Your task to perform on an android device: Open eBay Image 0: 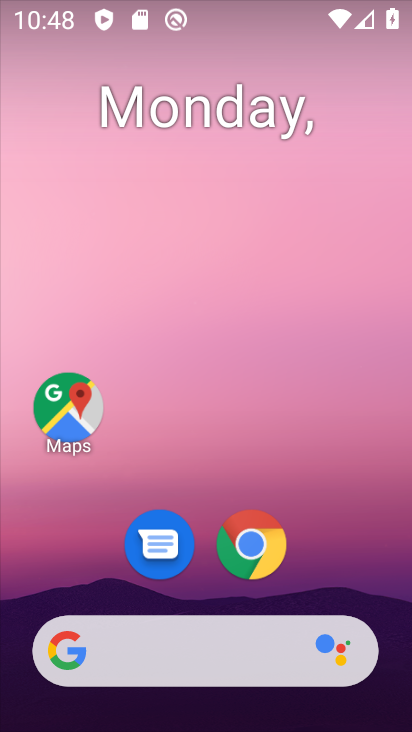
Step 0: click (259, 534)
Your task to perform on an android device: Open eBay Image 1: 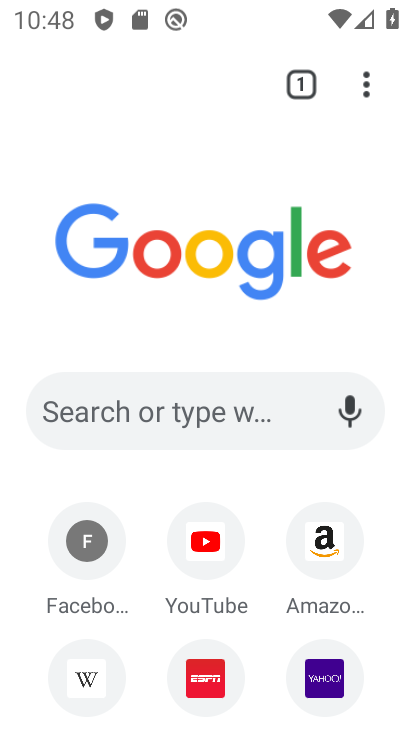
Step 1: click (149, 426)
Your task to perform on an android device: Open eBay Image 2: 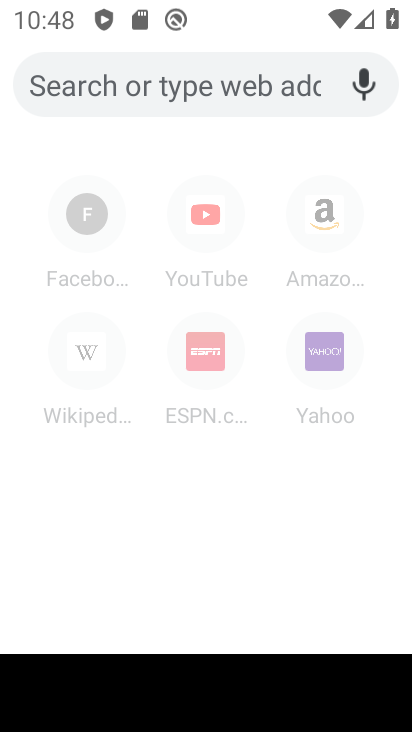
Step 2: type "eBay"
Your task to perform on an android device: Open eBay Image 3: 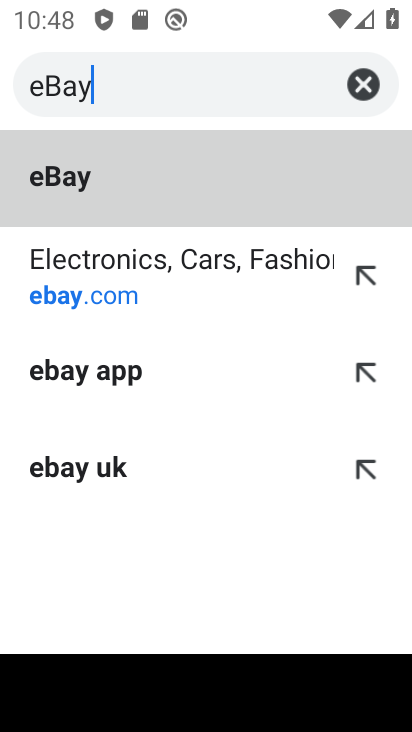
Step 3: click (156, 211)
Your task to perform on an android device: Open eBay Image 4: 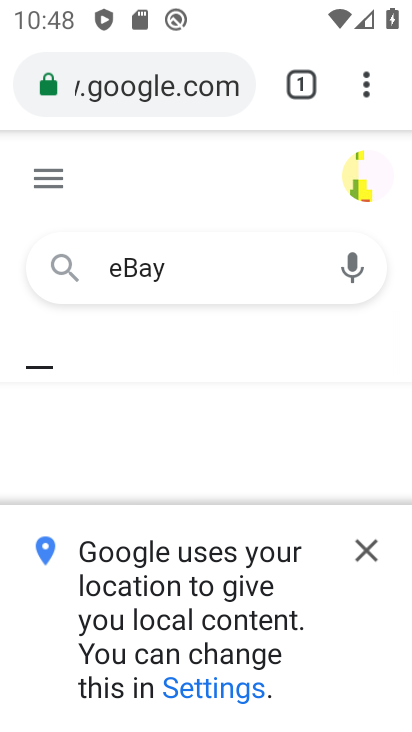
Step 4: click (369, 556)
Your task to perform on an android device: Open eBay Image 5: 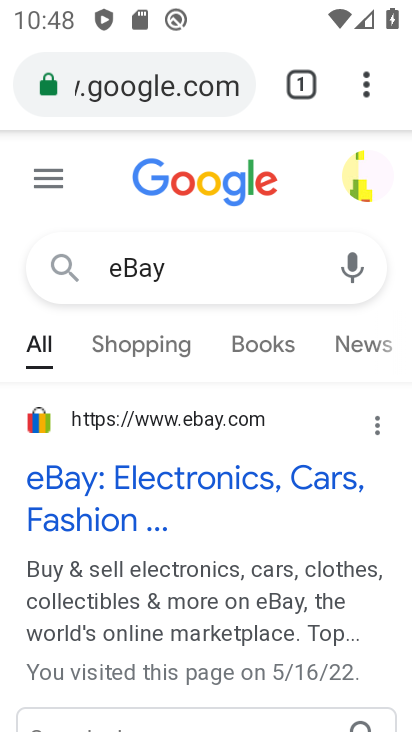
Step 5: click (314, 484)
Your task to perform on an android device: Open eBay Image 6: 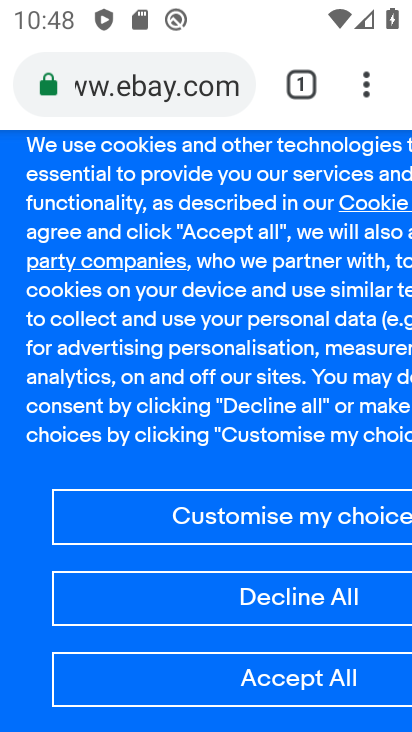
Step 6: click (302, 687)
Your task to perform on an android device: Open eBay Image 7: 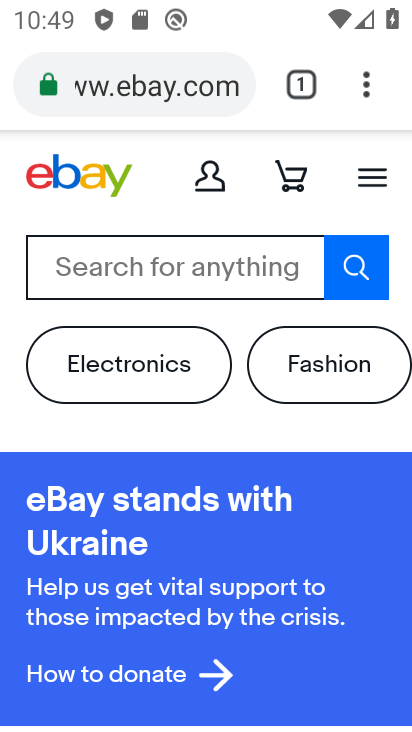
Step 7: task complete